Your task to perform on an android device: open the mobile data screen to see how much data has been used Image 0: 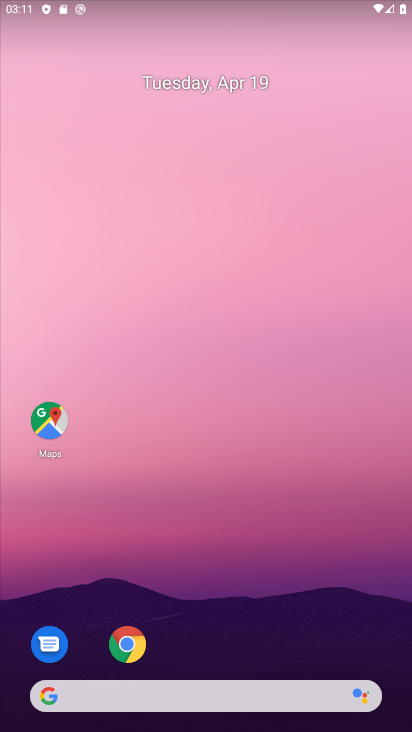
Step 0: drag from (297, 622) to (274, 147)
Your task to perform on an android device: open the mobile data screen to see how much data has been used Image 1: 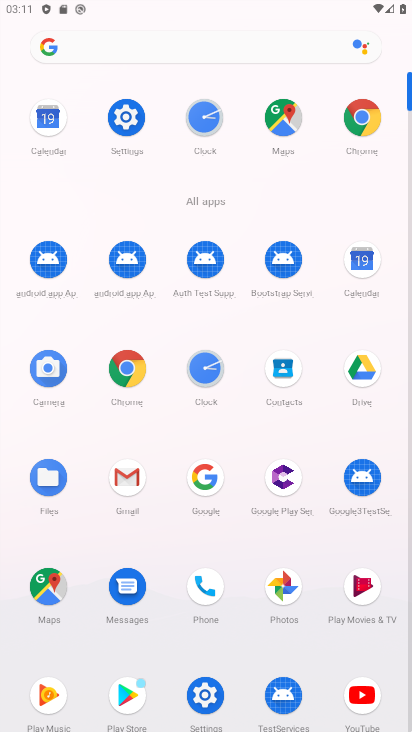
Step 1: click (208, 690)
Your task to perform on an android device: open the mobile data screen to see how much data has been used Image 2: 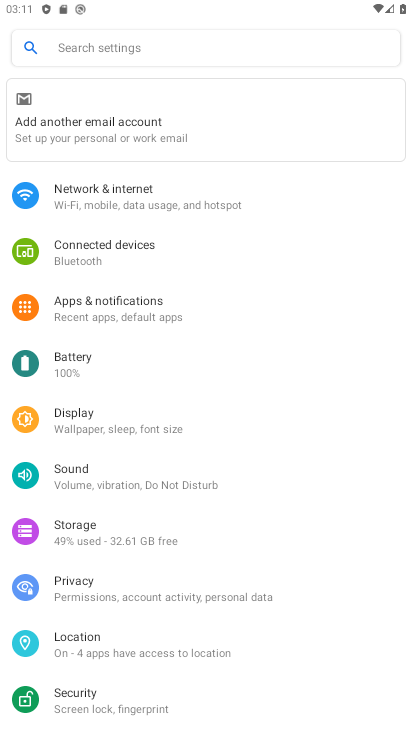
Step 2: click (94, 189)
Your task to perform on an android device: open the mobile data screen to see how much data has been used Image 3: 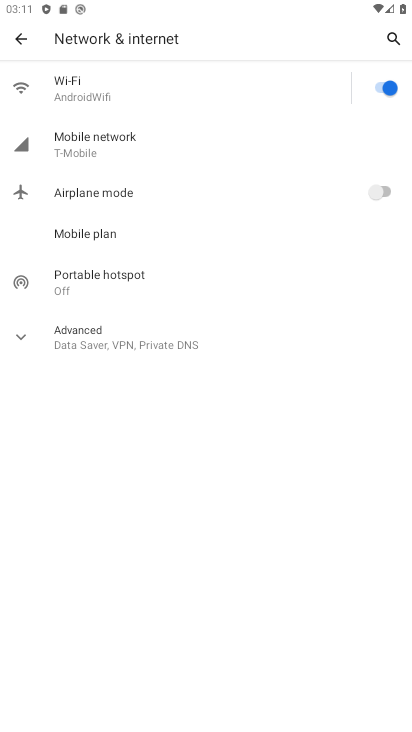
Step 3: click (89, 143)
Your task to perform on an android device: open the mobile data screen to see how much data has been used Image 4: 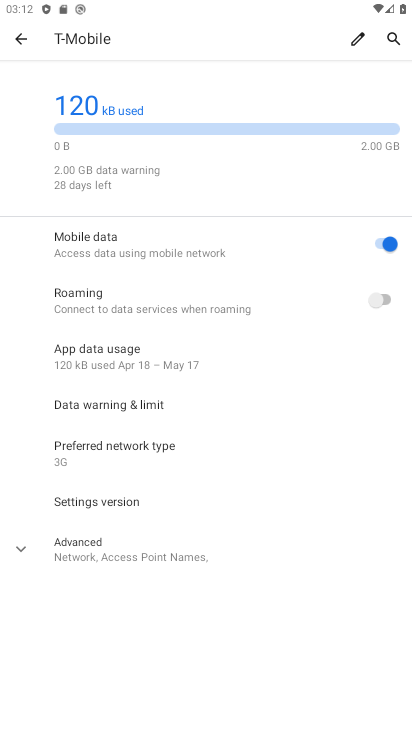
Step 4: task complete